Your task to perform on an android device: toggle translation in the chrome app Image 0: 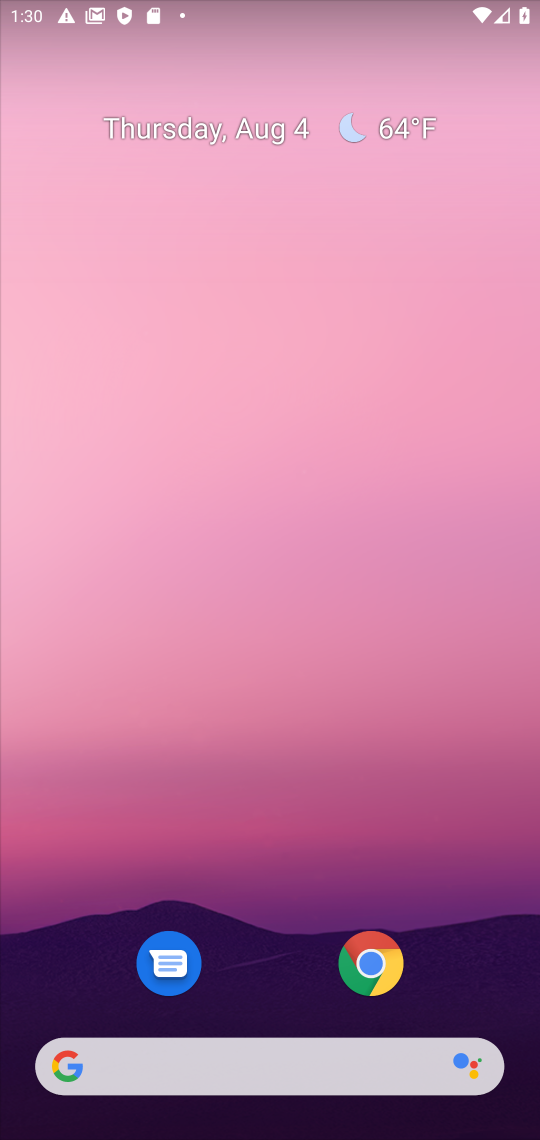
Step 0: click (369, 971)
Your task to perform on an android device: toggle translation in the chrome app Image 1: 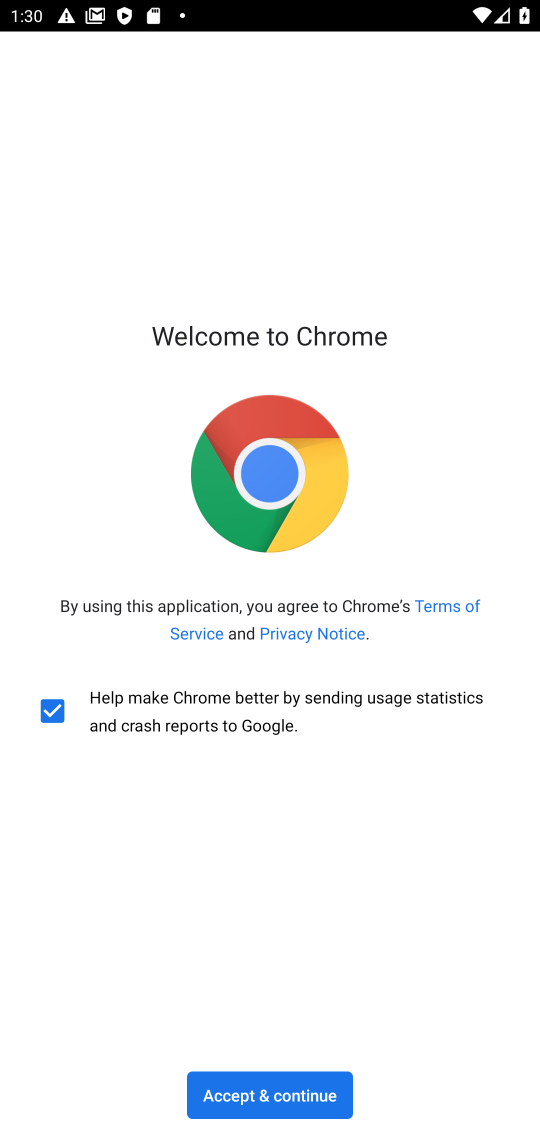
Step 1: click (272, 1088)
Your task to perform on an android device: toggle translation in the chrome app Image 2: 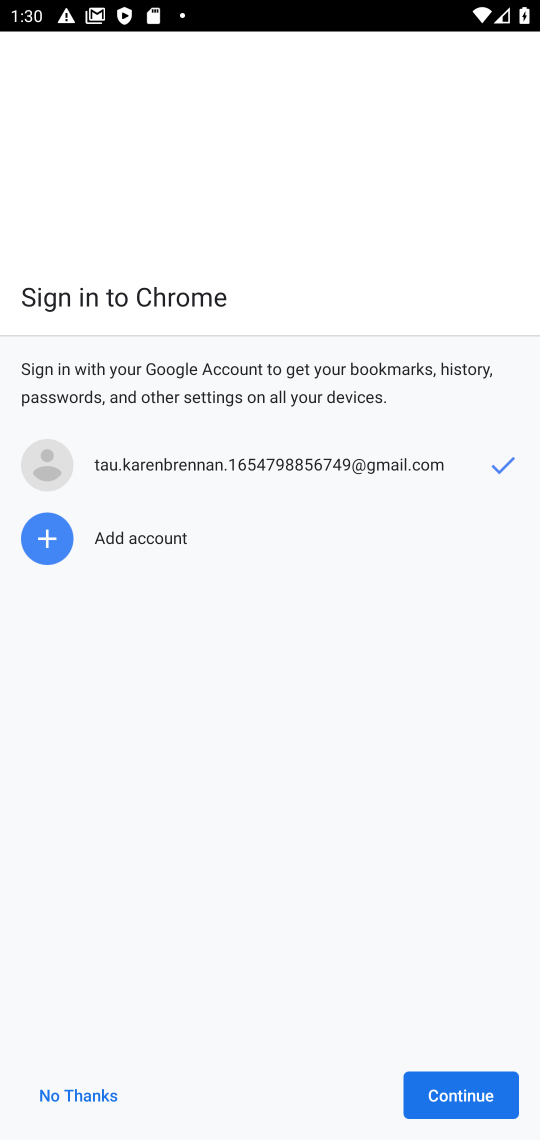
Step 2: click (445, 1089)
Your task to perform on an android device: toggle translation in the chrome app Image 3: 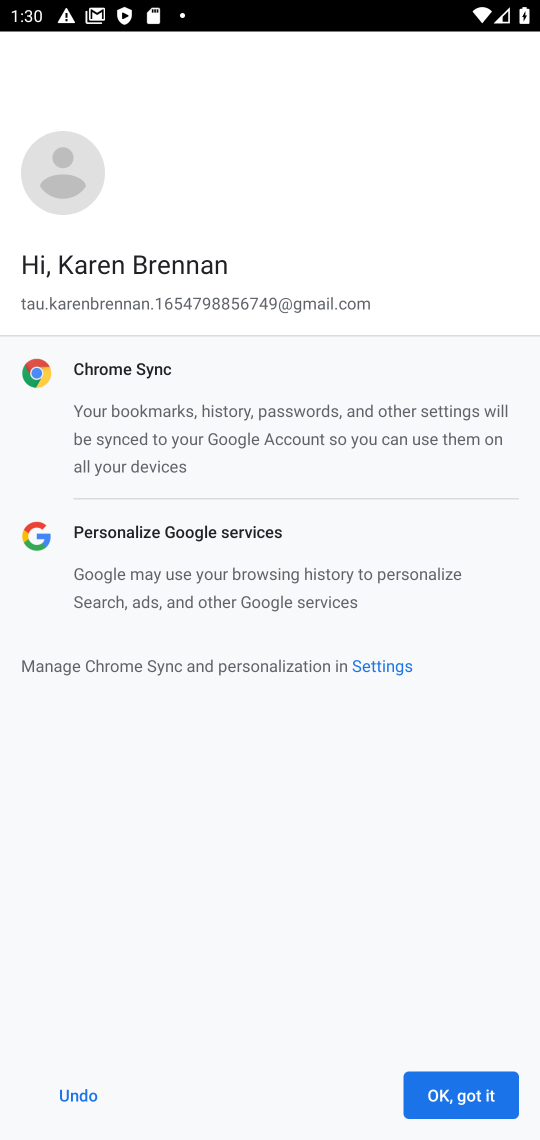
Step 3: click (440, 1081)
Your task to perform on an android device: toggle translation in the chrome app Image 4: 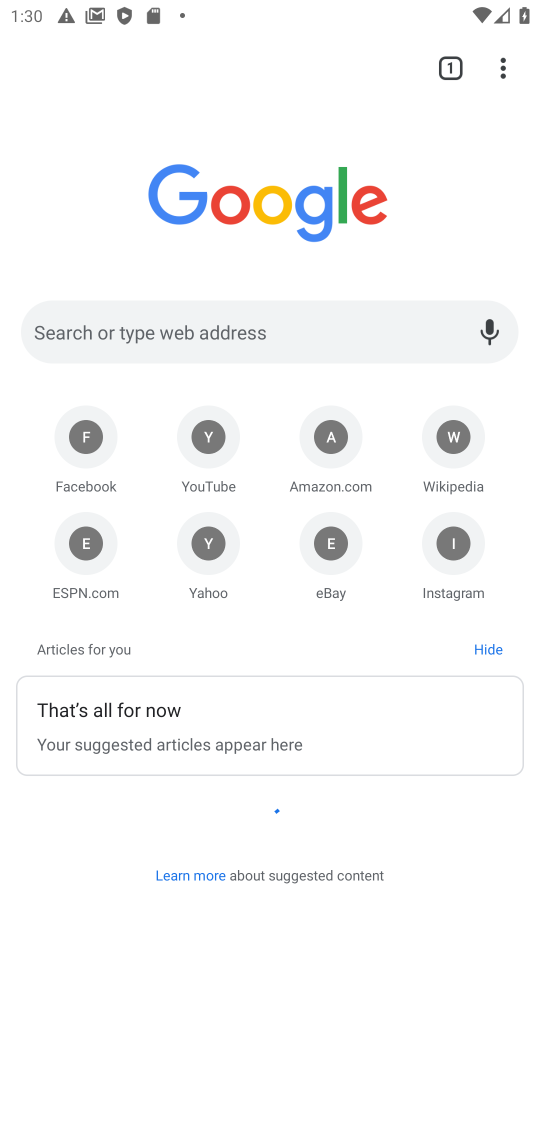
Step 4: drag from (504, 70) to (356, 585)
Your task to perform on an android device: toggle translation in the chrome app Image 5: 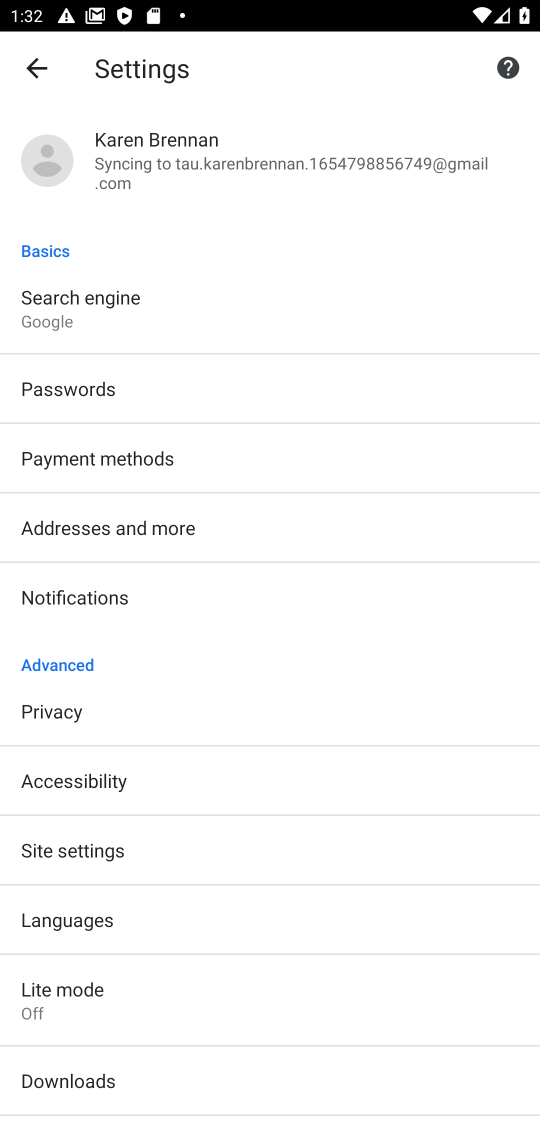
Step 5: drag from (151, 1049) to (126, 605)
Your task to perform on an android device: toggle translation in the chrome app Image 6: 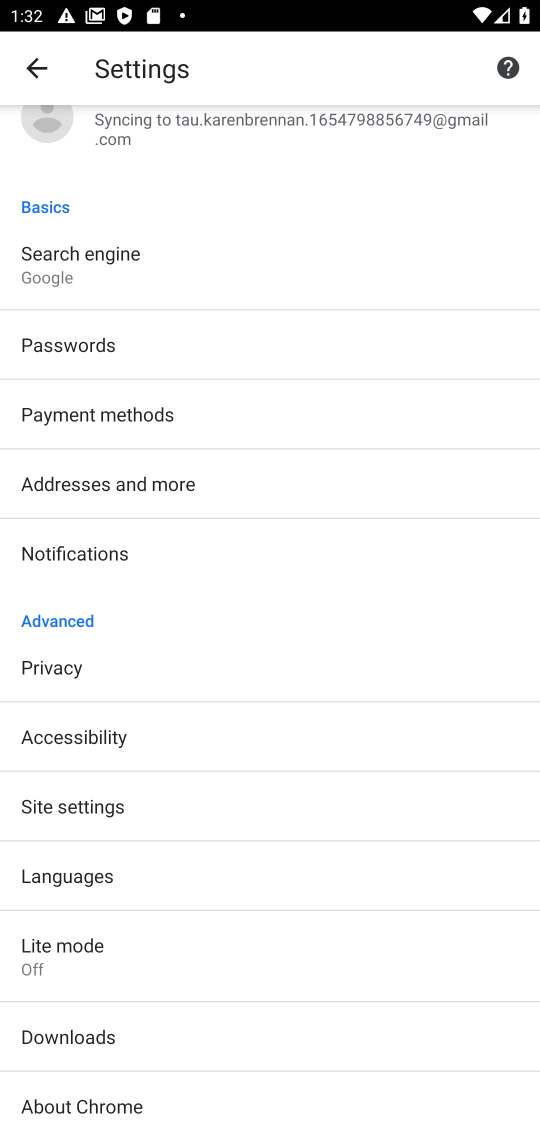
Step 6: click (106, 891)
Your task to perform on an android device: toggle translation in the chrome app Image 7: 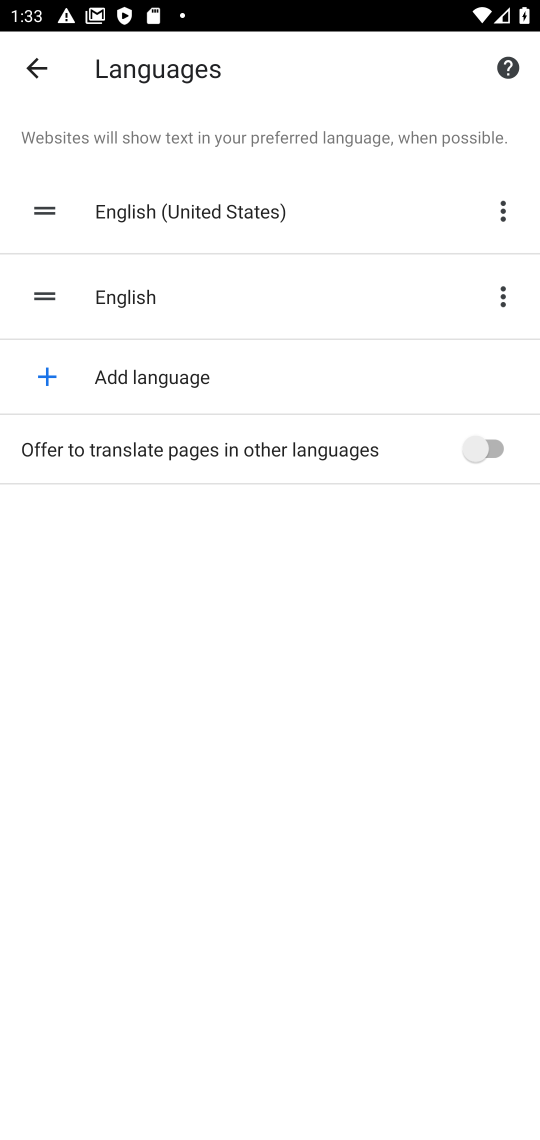
Step 7: click (461, 444)
Your task to perform on an android device: toggle translation in the chrome app Image 8: 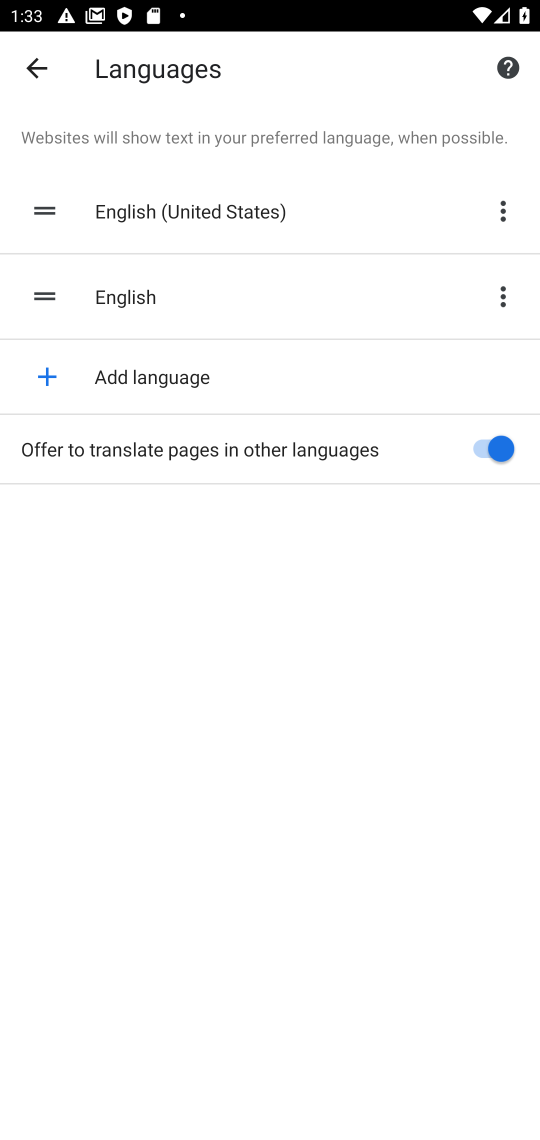
Step 8: task complete